Your task to perform on an android device: Add "razer deathadder" to the cart on ebay, then select checkout. Image 0: 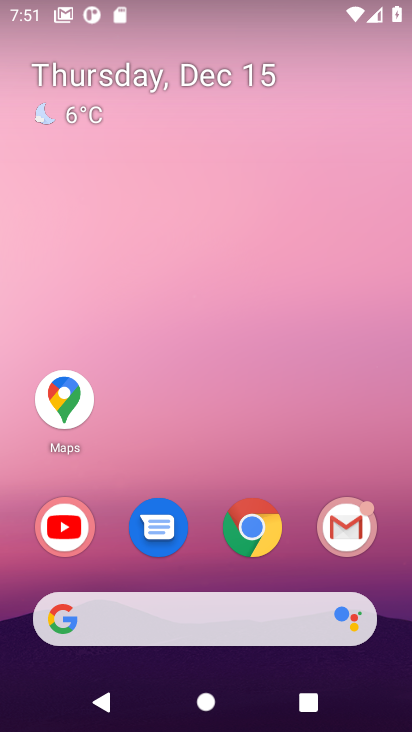
Step 0: click (261, 544)
Your task to perform on an android device: Add "razer deathadder" to the cart on ebay, then select checkout. Image 1: 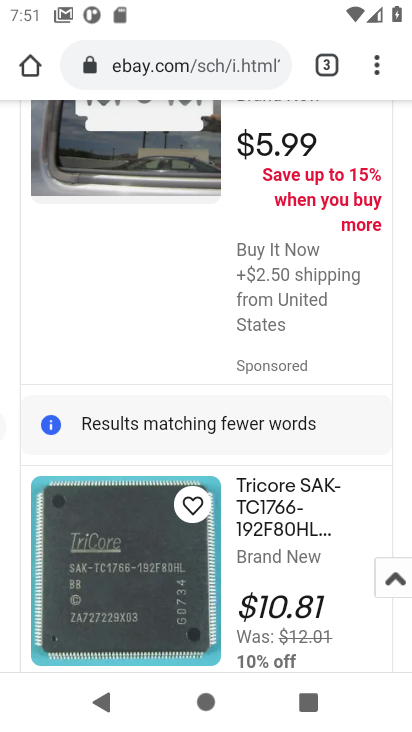
Step 1: click (221, 69)
Your task to perform on an android device: Add "razer deathadder" to the cart on ebay, then select checkout. Image 2: 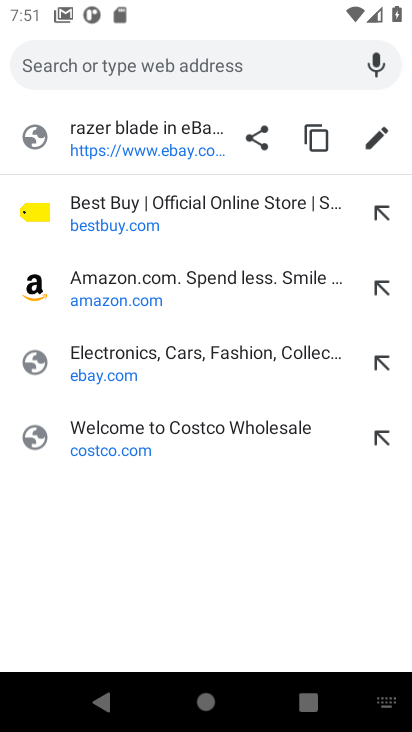
Step 2: click (203, 567)
Your task to perform on an android device: Add "razer deathadder" to the cart on ebay, then select checkout. Image 3: 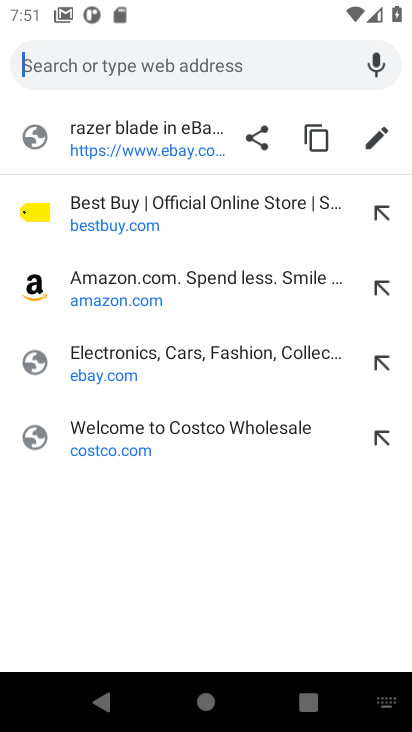
Step 3: press back button
Your task to perform on an android device: Add "razer deathadder" to the cart on ebay, then select checkout. Image 4: 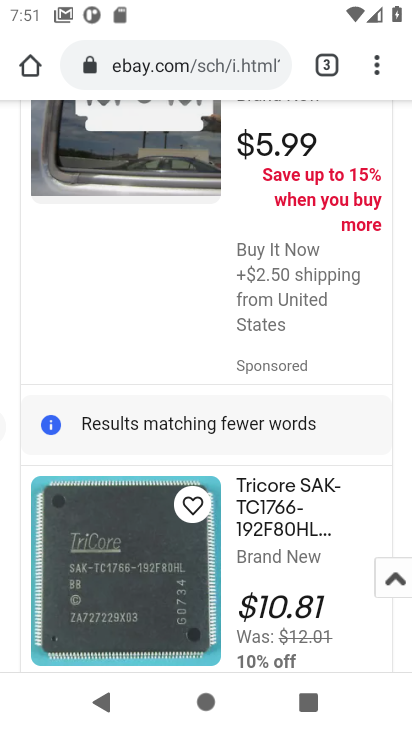
Step 4: drag from (236, 313) to (384, 730)
Your task to perform on an android device: Add "razer deathadder" to the cart on ebay, then select checkout. Image 5: 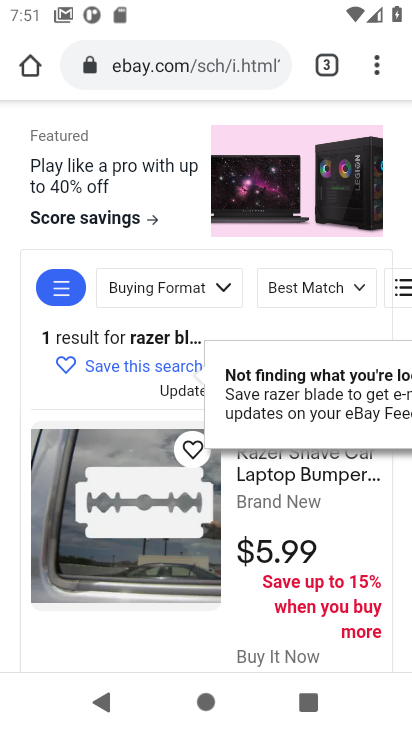
Step 5: drag from (181, 208) to (248, 496)
Your task to perform on an android device: Add "razer deathadder" to the cart on ebay, then select checkout. Image 6: 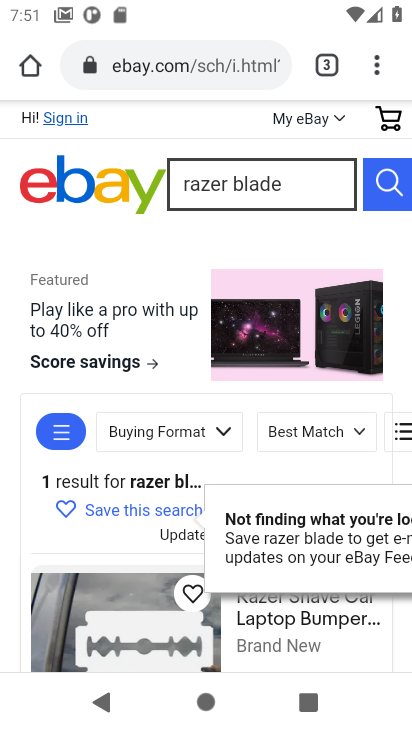
Step 6: click (289, 175)
Your task to perform on an android device: Add "razer deathadder" to the cart on ebay, then select checkout. Image 7: 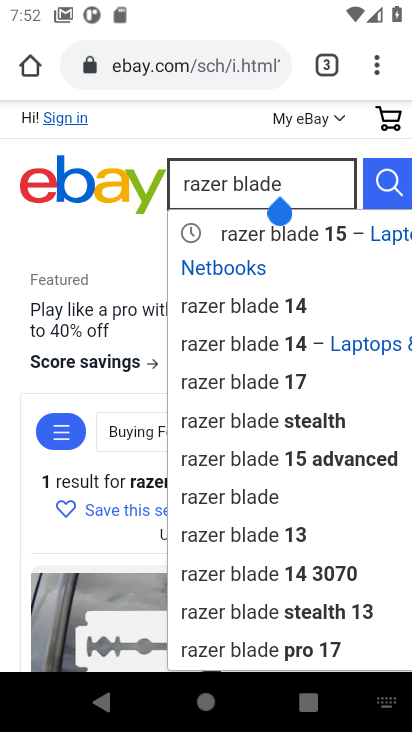
Step 7: task complete